Your task to perform on an android device: turn on translation in the chrome app Image 0: 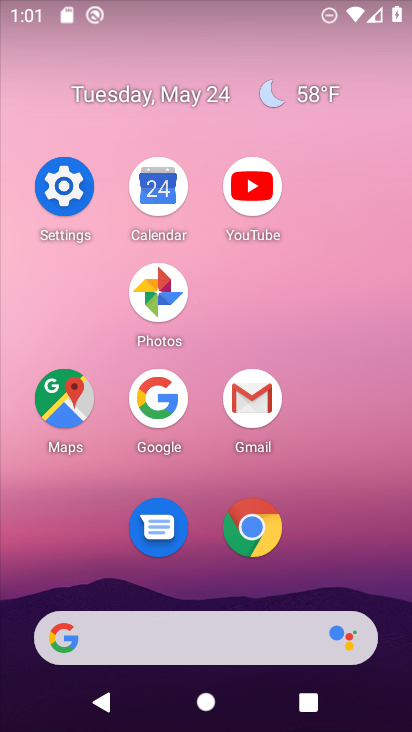
Step 0: click (279, 530)
Your task to perform on an android device: turn on translation in the chrome app Image 1: 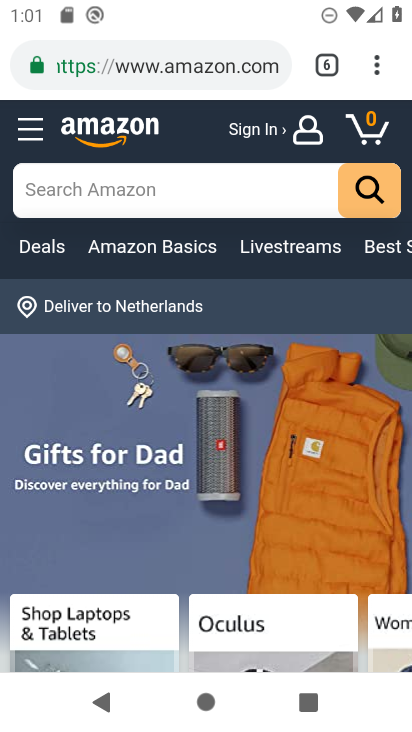
Step 1: click (379, 73)
Your task to perform on an android device: turn on translation in the chrome app Image 2: 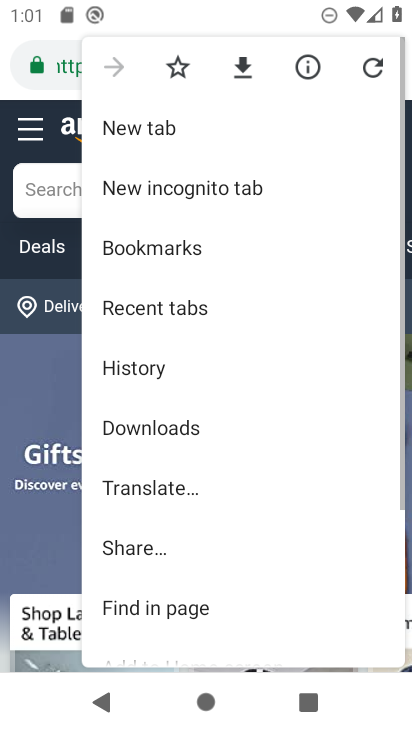
Step 2: drag from (262, 535) to (312, 136)
Your task to perform on an android device: turn on translation in the chrome app Image 3: 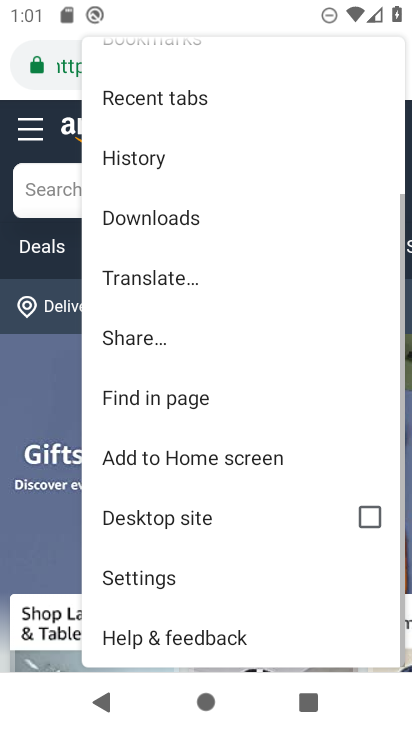
Step 3: click (220, 585)
Your task to perform on an android device: turn on translation in the chrome app Image 4: 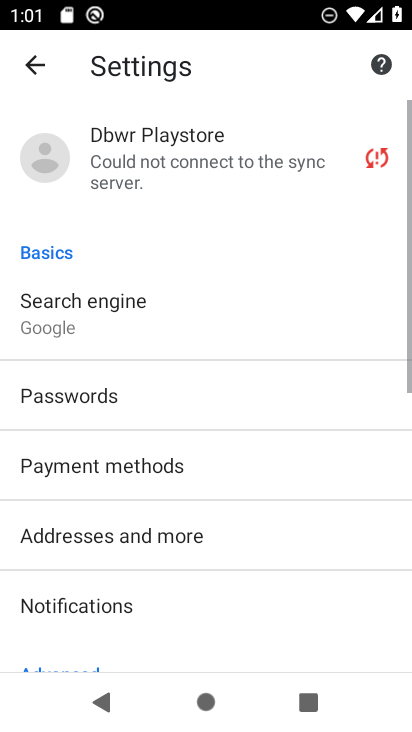
Step 4: drag from (209, 569) to (205, 266)
Your task to perform on an android device: turn on translation in the chrome app Image 5: 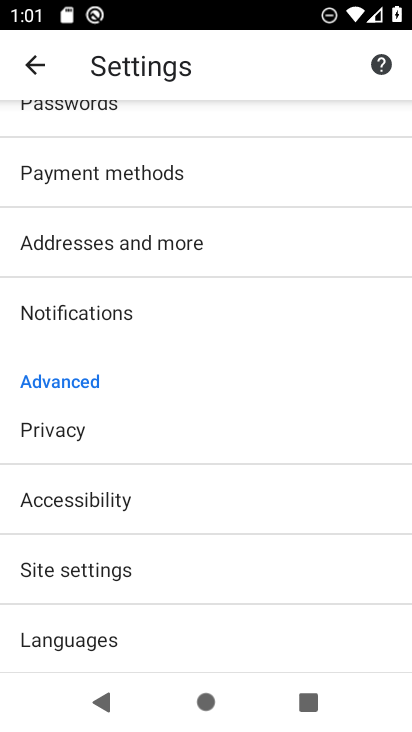
Step 5: drag from (171, 559) to (204, 279)
Your task to perform on an android device: turn on translation in the chrome app Image 6: 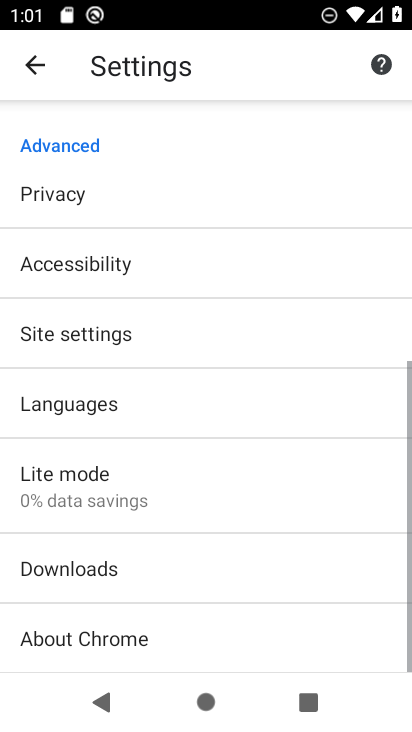
Step 6: click (152, 388)
Your task to perform on an android device: turn on translation in the chrome app Image 7: 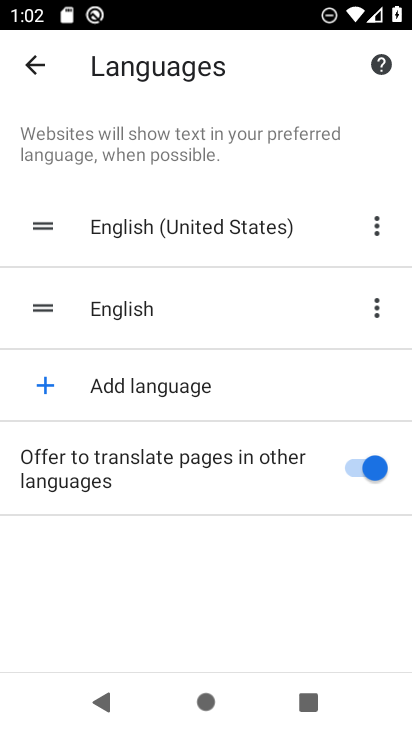
Step 7: task complete